Your task to perform on an android device: What's the weather going to be this weekend? Image 0: 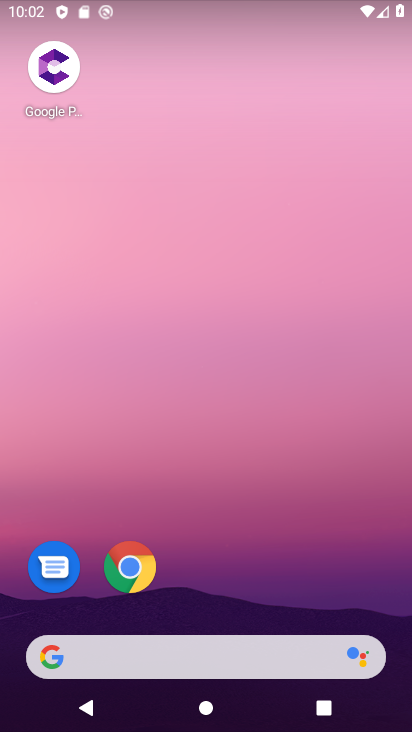
Step 0: drag from (236, 584) to (228, 24)
Your task to perform on an android device: What's the weather going to be this weekend? Image 1: 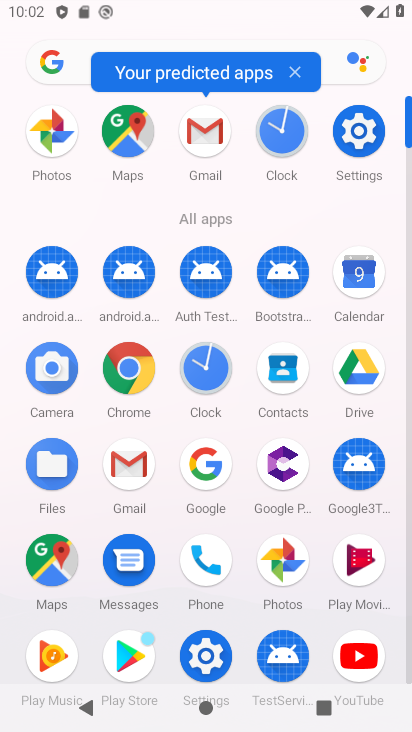
Step 1: press back button
Your task to perform on an android device: What's the weather going to be this weekend? Image 2: 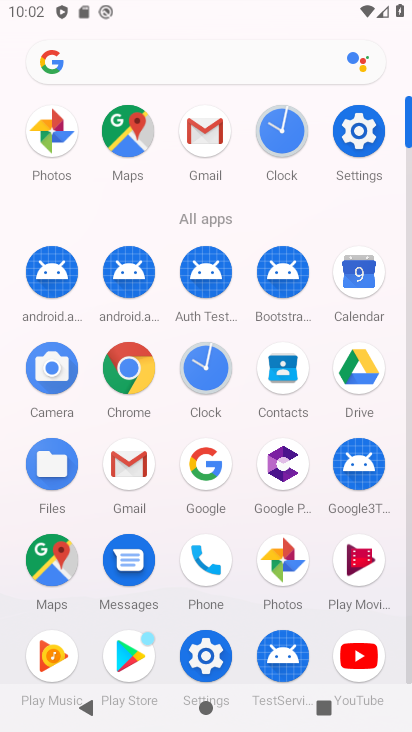
Step 2: press back button
Your task to perform on an android device: What's the weather going to be this weekend? Image 3: 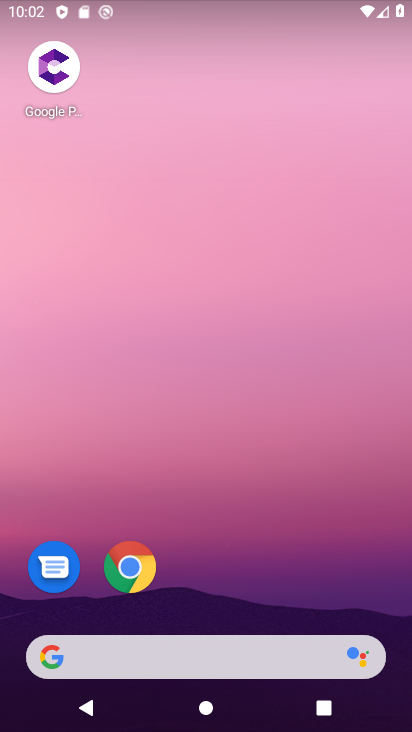
Step 3: drag from (15, 292) to (397, 271)
Your task to perform on an android device: What's the weather going to be this weekend? Image 4: 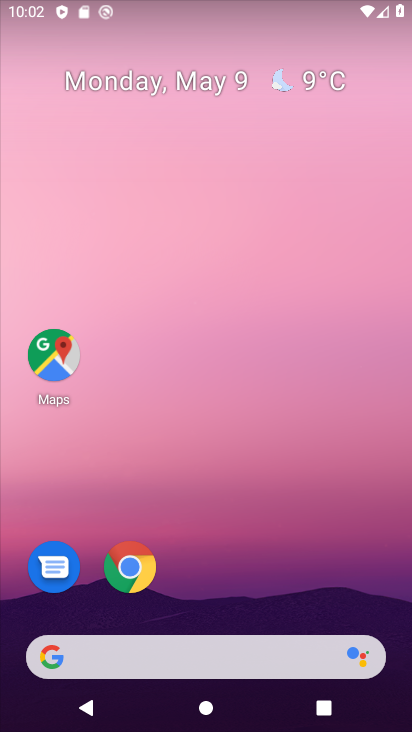
Step 4: click (312, 73)
Your task to perform on an android device: What's the weather going to be this weekend? Image 5: 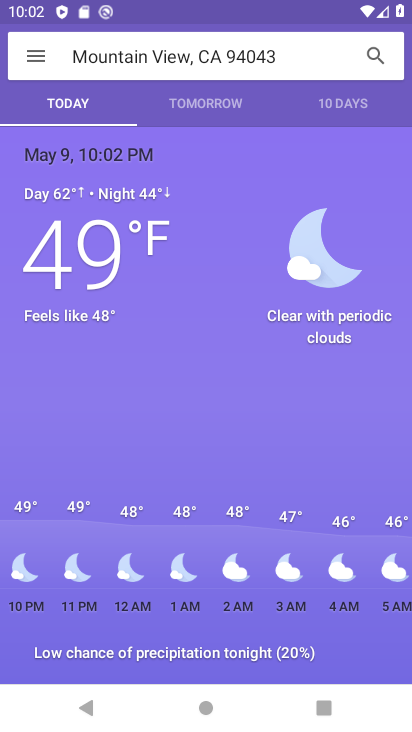
Step 5: click (347, 105)
Your task to perform on an android device: What's the weather going to be this weekend? Image 6: 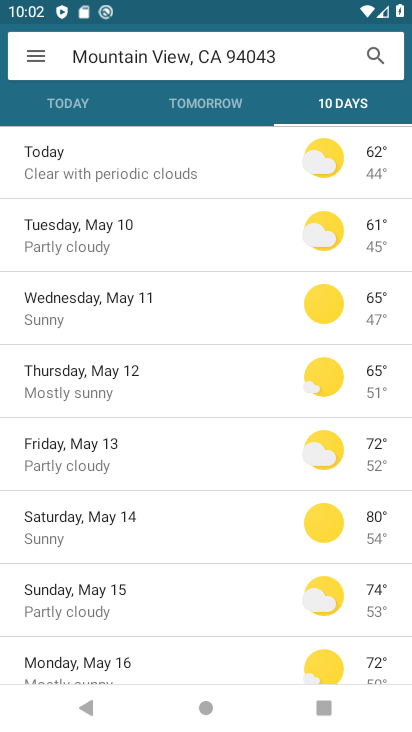
Step 6: task complete